Your task to perform on an android device: move an email to a new category in the gmail app Image 0: 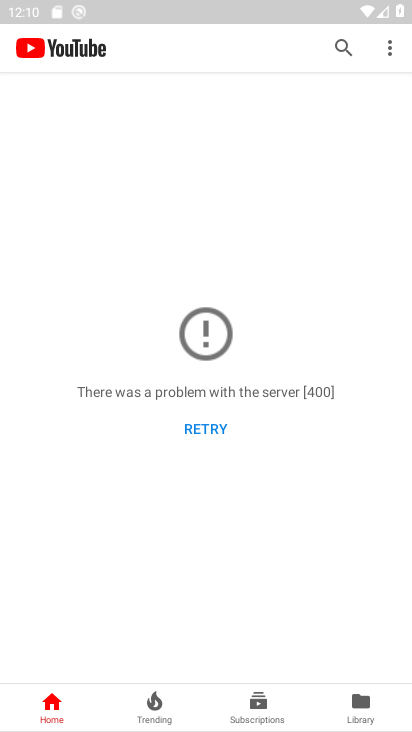
Step 0: press home button
Your task to perform on an android device: move an email to a new category in the gmail app Image 1: 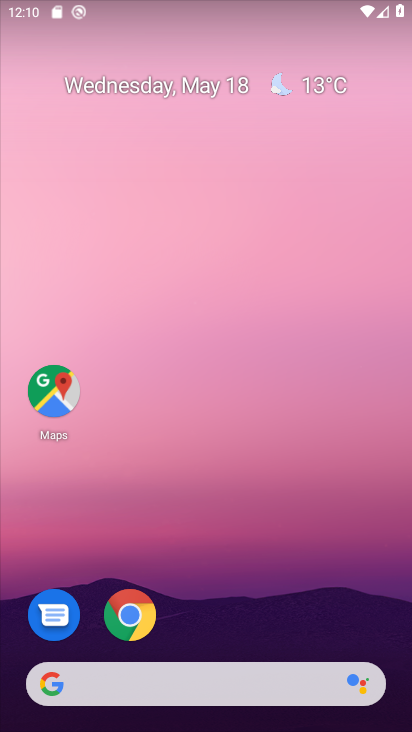
Step 1: drag from (409, 580) to (410, 299)
Your task to perform on an android device: move an email to a new category in the gmail app Image 2: 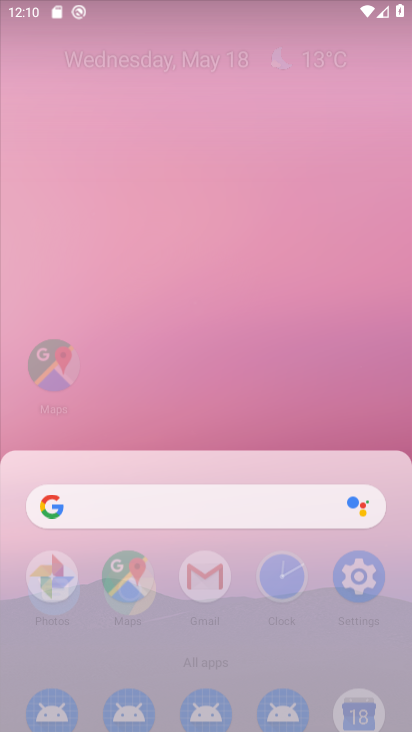
Step 2: drag from (389, 680) to (375, 402)
Your task to perform on an android device: move an email to a new category in the gmail app Image 3: 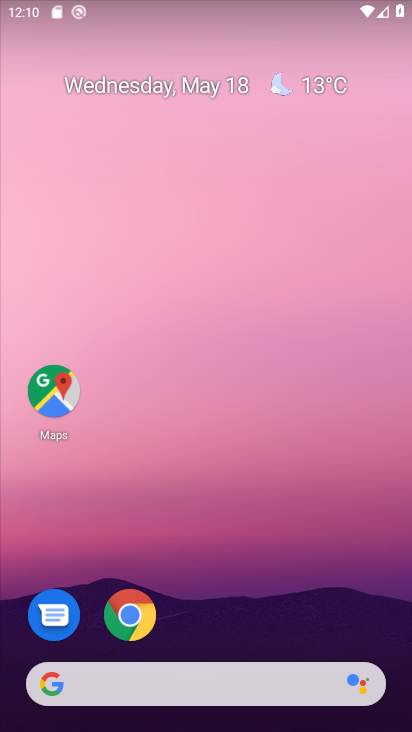
Step 3: drag from (411, 567) to (411, 256)
Your task to perform on an android device: move an email to a new category in the gmail app Image 4: 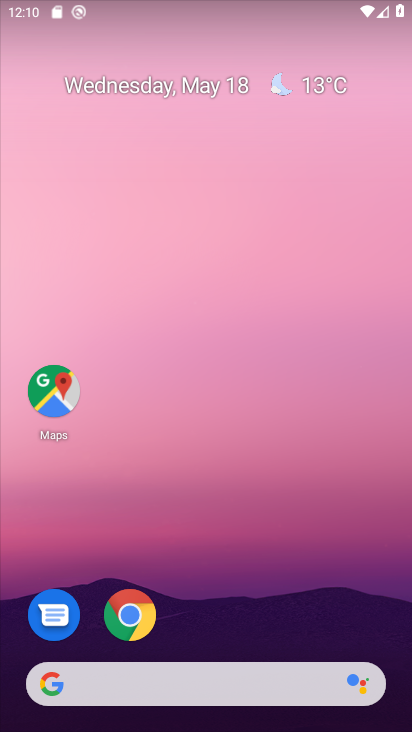
Step 4: drag from (405, 579) to (388, 202)
Your task to perform on an android device: move an email to a new category in the gmail app Image 5: 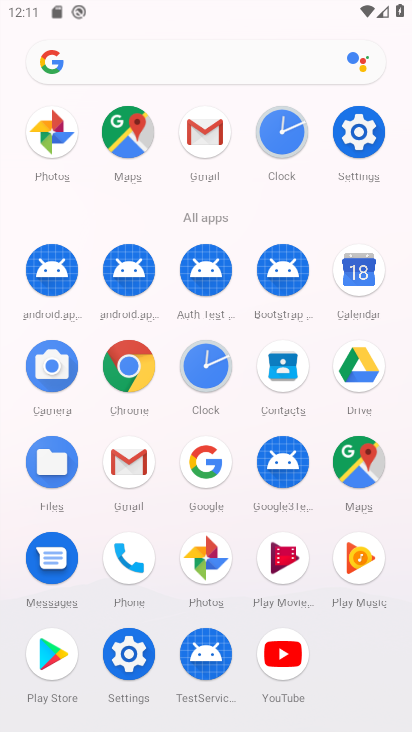
Step 5: click (132, 467)
Your task to perform on an android device: move an email to a new category in the gmail app Image 6: 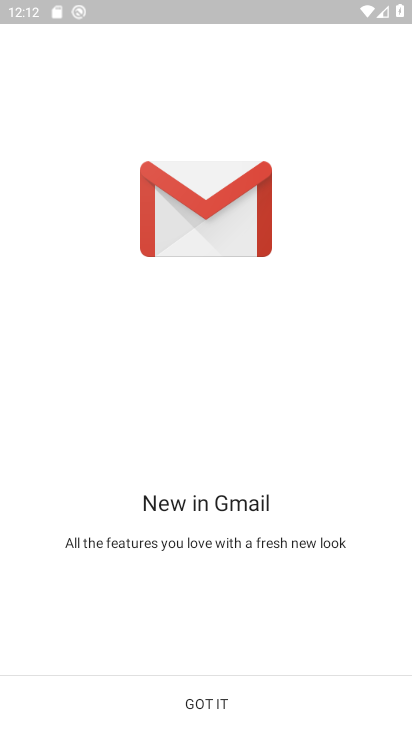
Step 6: click (203, 705)
Your task to perform on an android device: move an email to a new category in the gmail app Image 7: 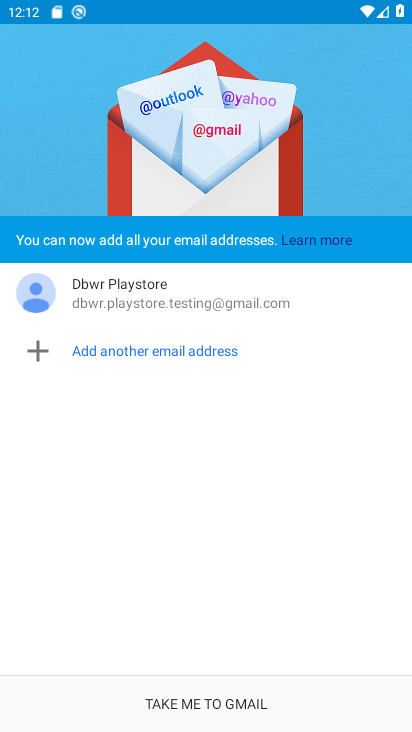
Step 7: click (203, 699)
Your task to perform on an android device: move an email to a new category in the gmail app Image 8: 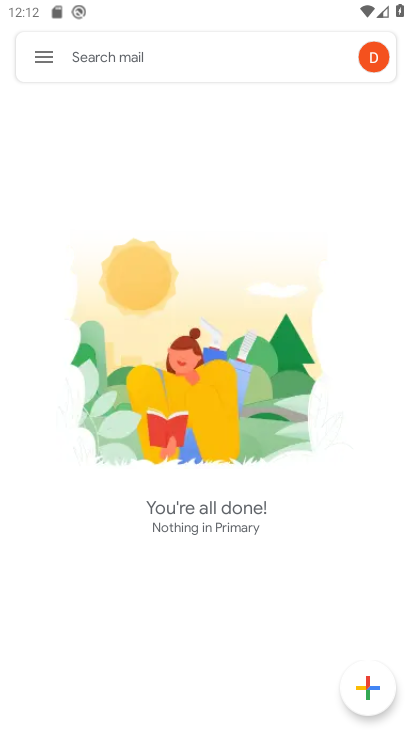
Step 8: click (36, 49)
Your task to perform on an android device: move an email to a new category in the gmail app Image 9: 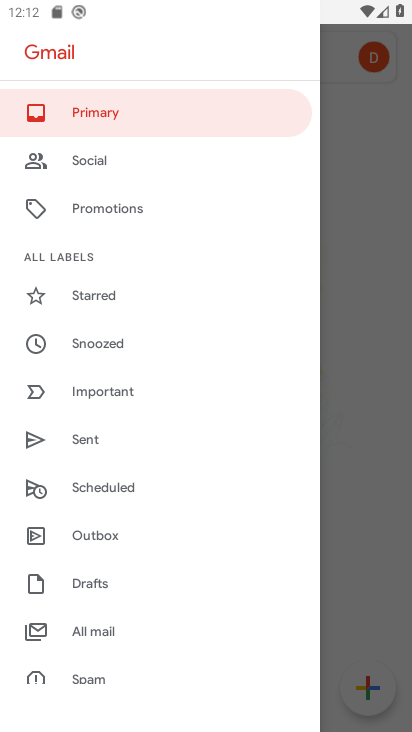
Step 9: click (93, 109)
Your task to perform on an android device: move an email to a new category in the gmail app Image 10: 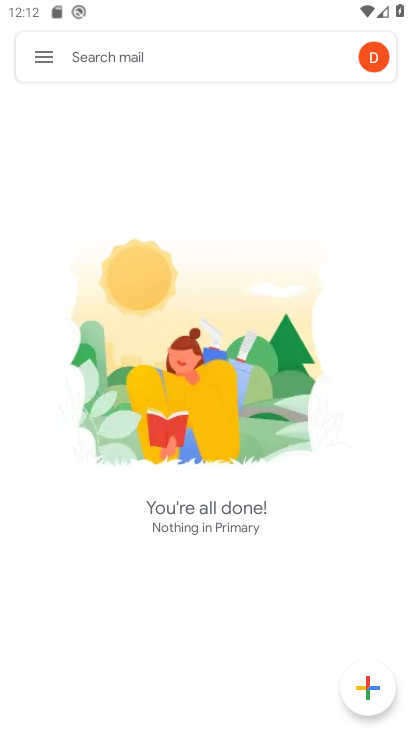
Step 10: task complete